Your task to perform on an android device: Open maps Image 0: 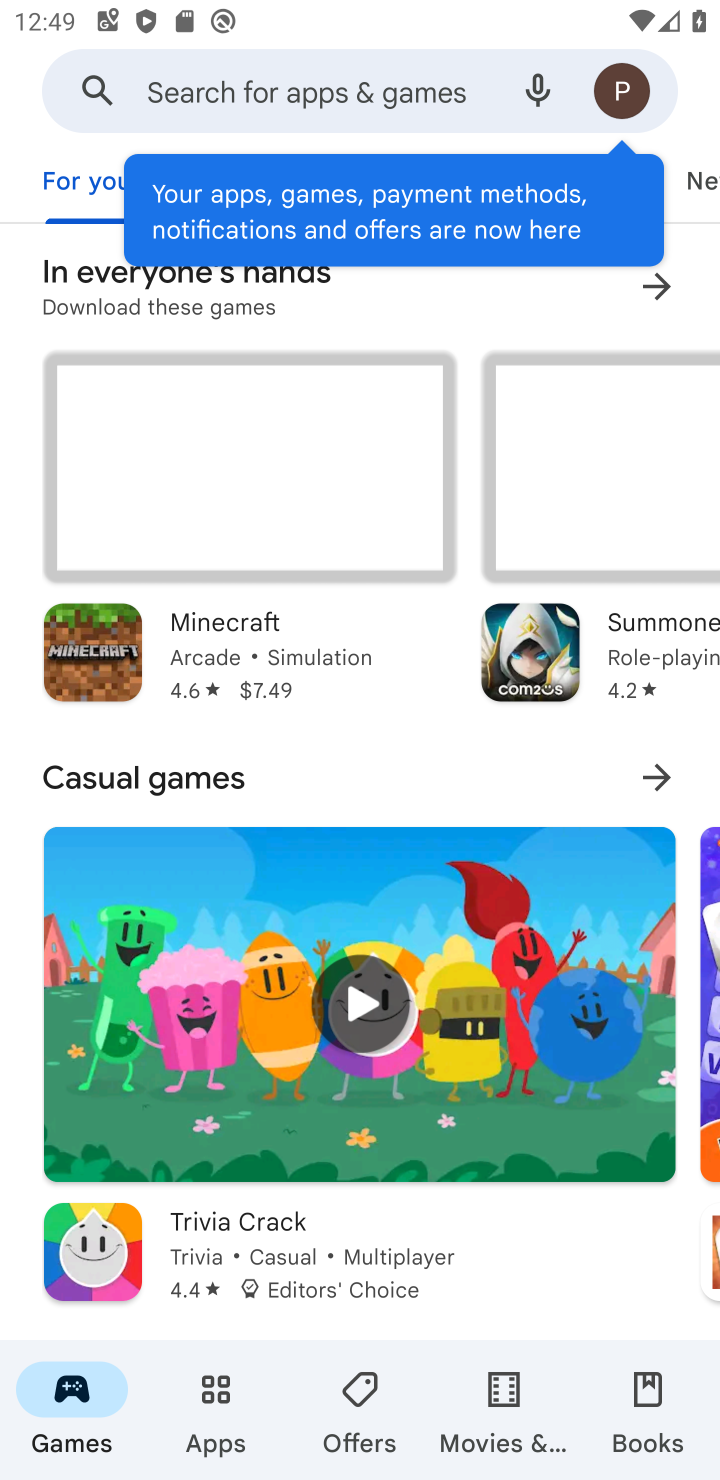
Step 0: press home button
Your task to perform on an android device: Open maps Image 1: 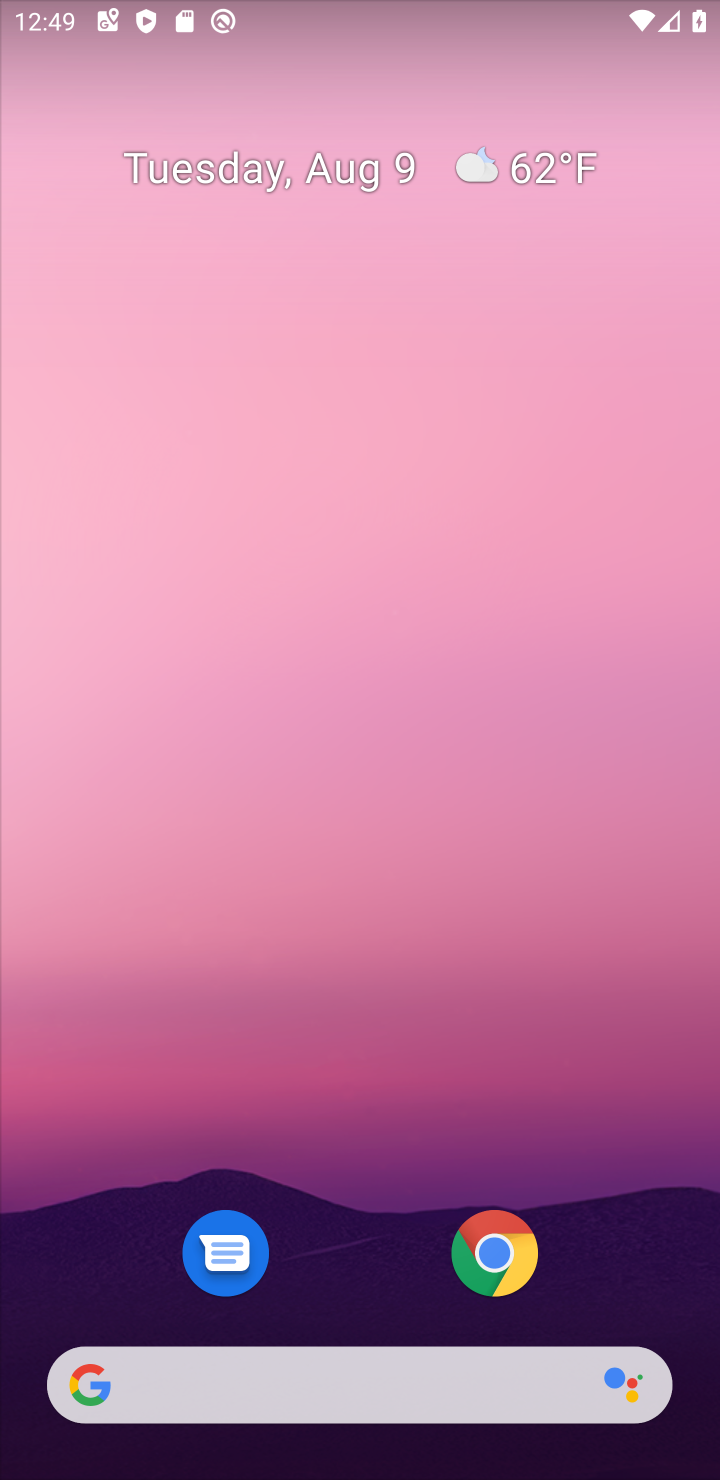
Step 1: drag from (353, 489) to (237, 175)
Your task to perform on an android device: Open maps Image 2: 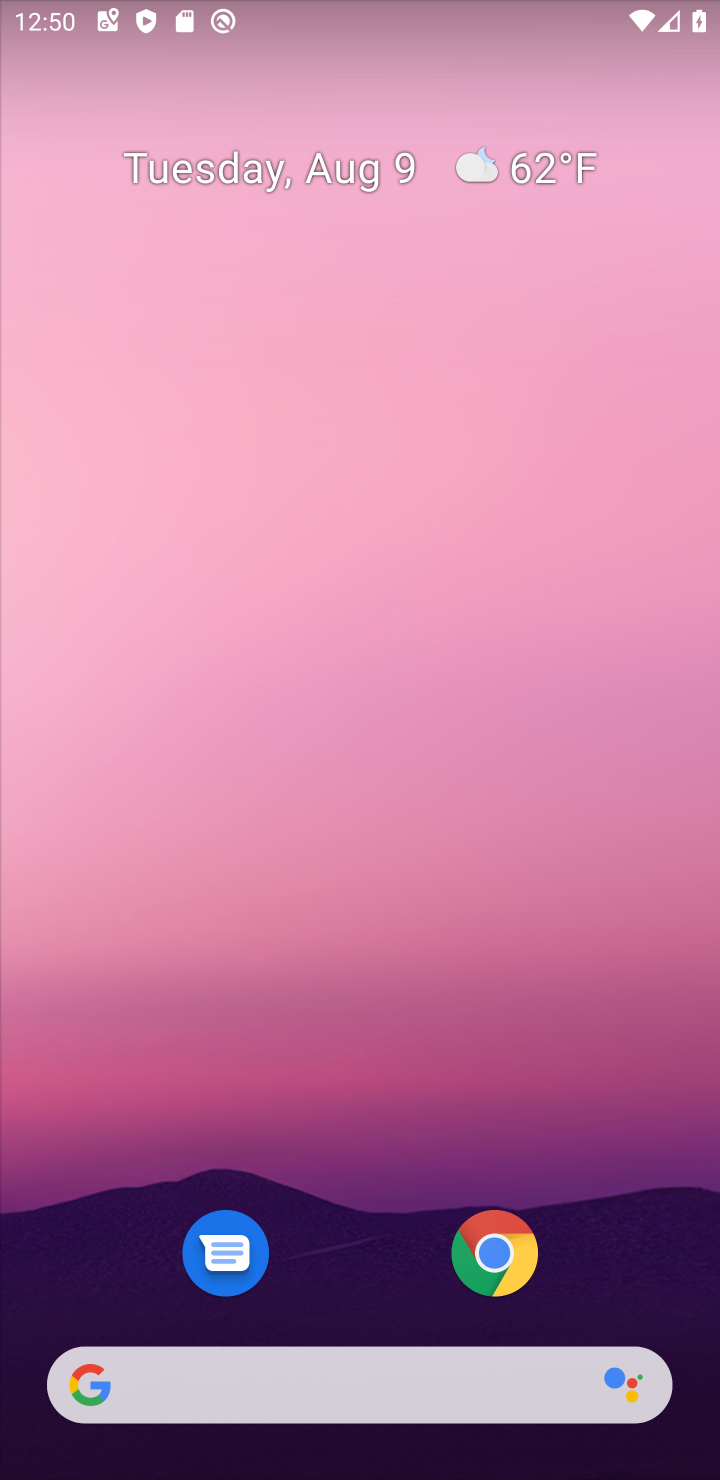
Step 2: drag from (693, 1271) to (239, 29)
Your task to perform on an android device: Open maps Image 3: 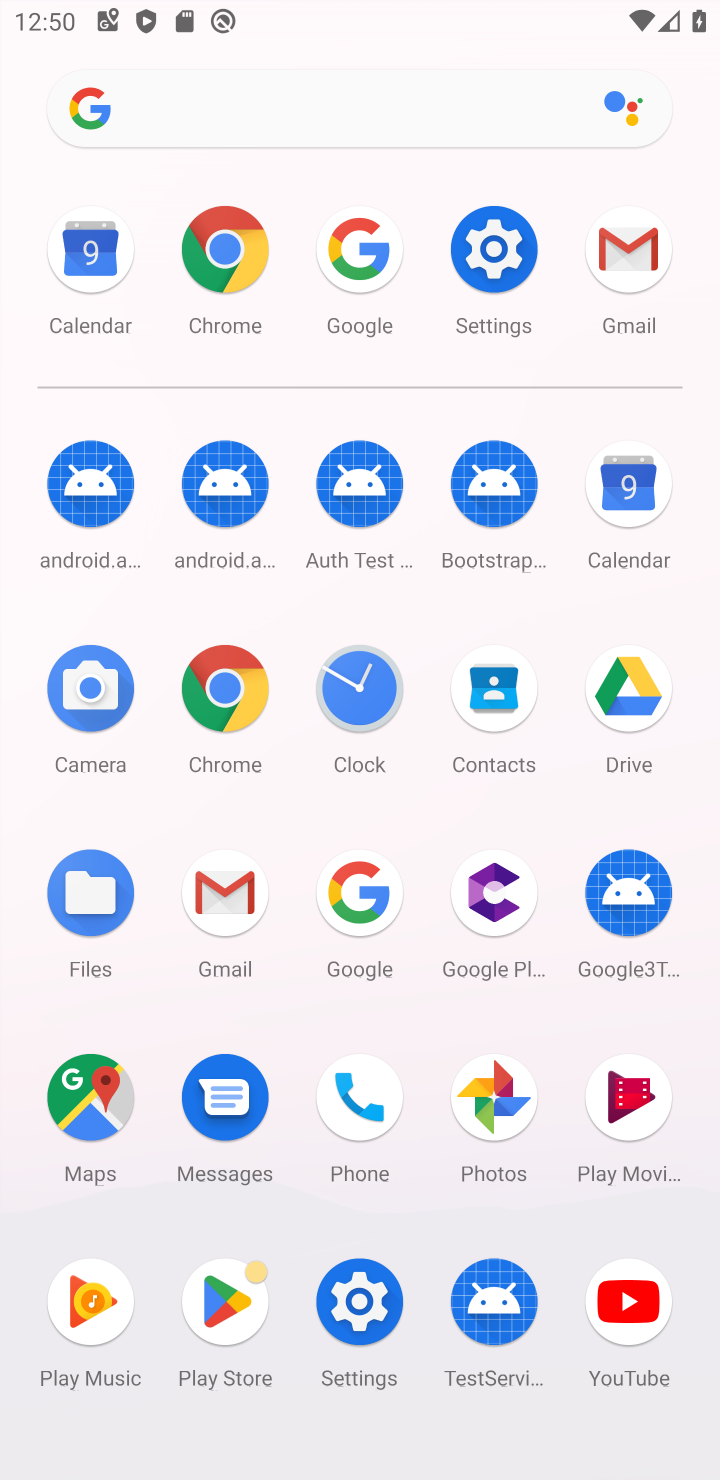
Step 3: click (89, 1089)
Your task to perform on an android device: Open maps Image 4: 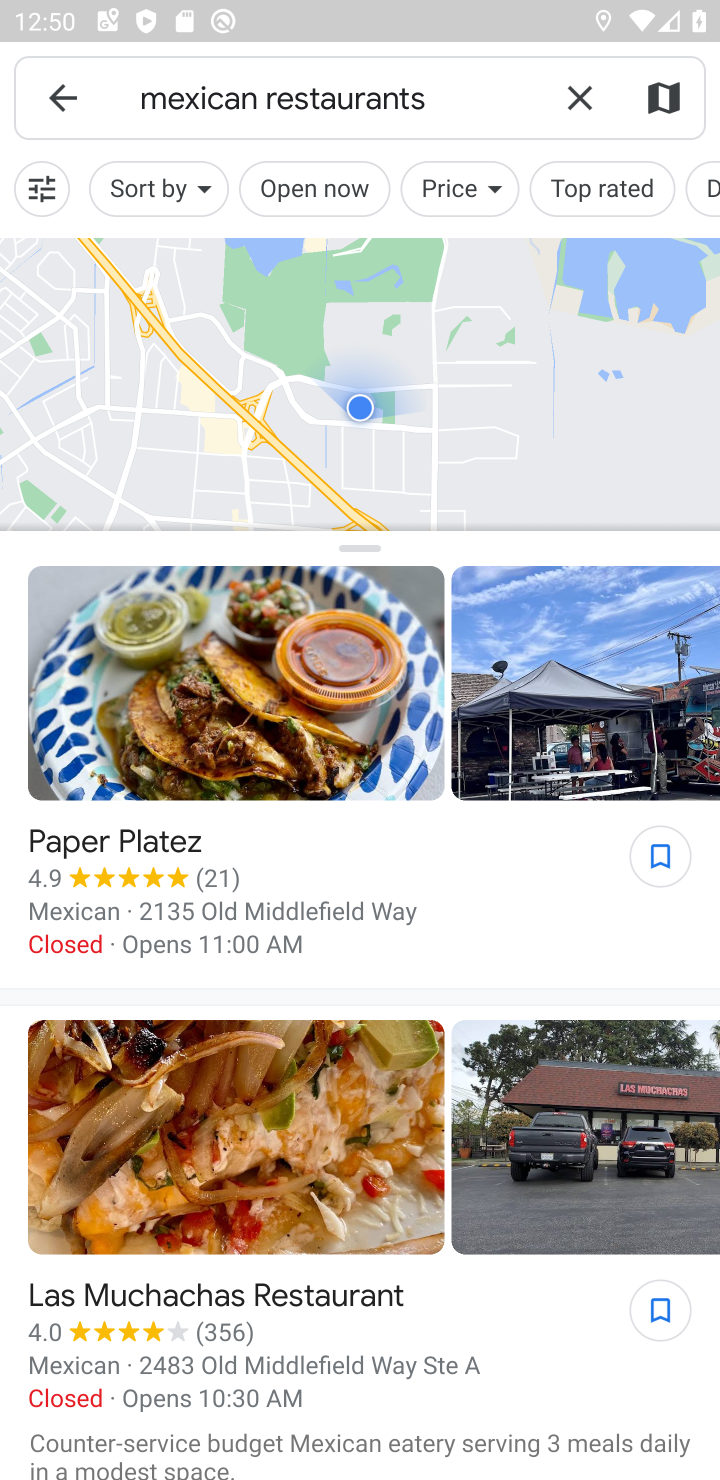
Step 4: click (575, 101)
Your task to perform on an android device: Open maps Image 5: 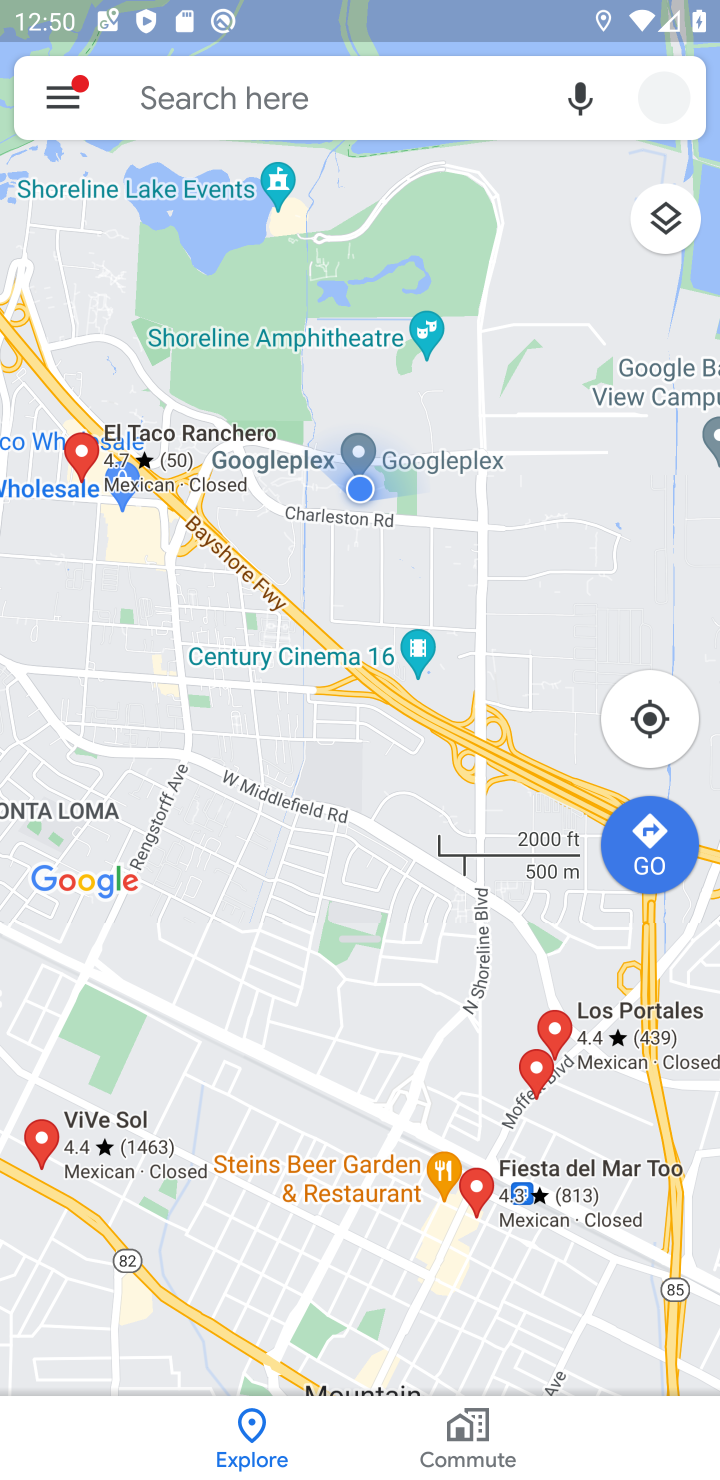
Step 5: task complete